Your task to perform on an android device: add a contact Image 0: 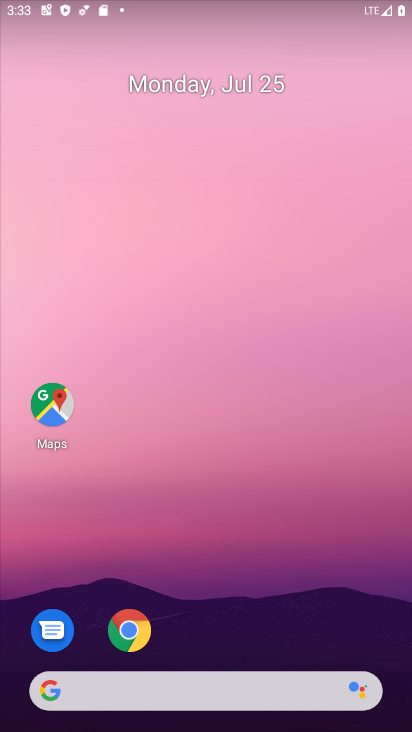
Step 0: drag from (292, 16) to (220, 7)
Your task to perform on an android device: add a contact Image 1: 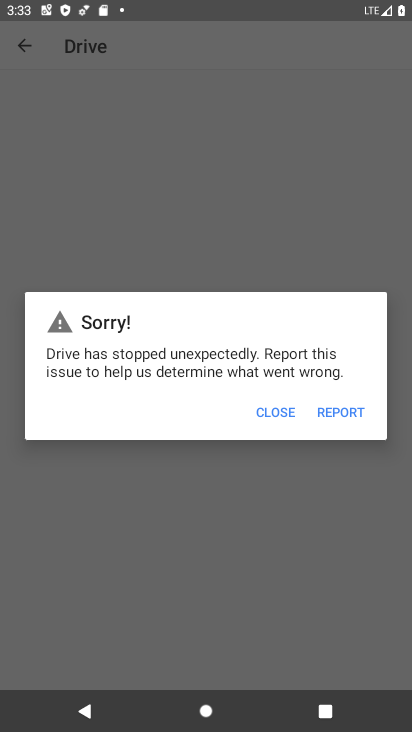
Step 1: press home button
Your task to perform on an android device: add a contact Image 2: 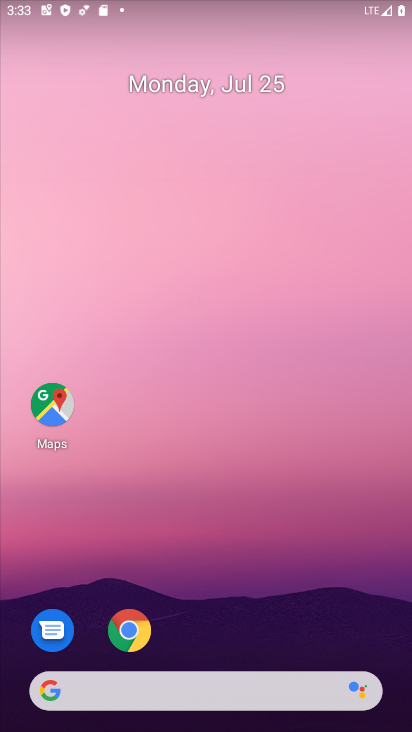
Step 2: drag from (197, 636) to (337, 3)
Your task to perform on an android device: add a contact Image 3: 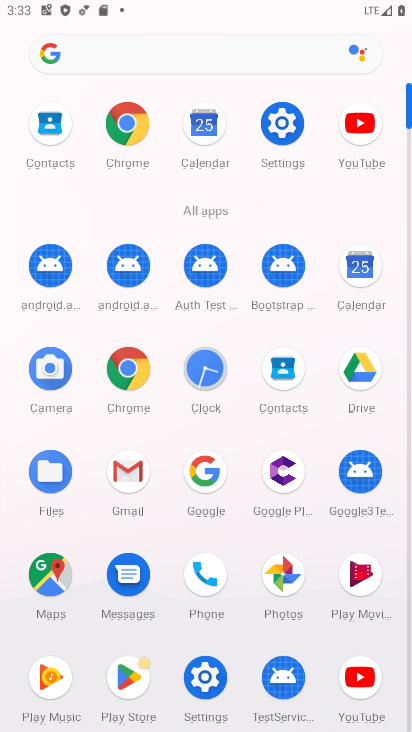
Step 3: click (292, 376)
Your task to perform on an android device: add a contact Image 4: 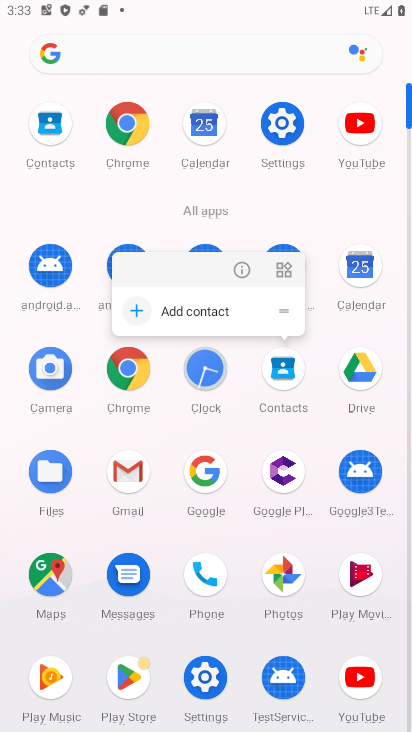
Step 4: click (281, 243)
Your task to perform on an android device: add a contact Image 5: 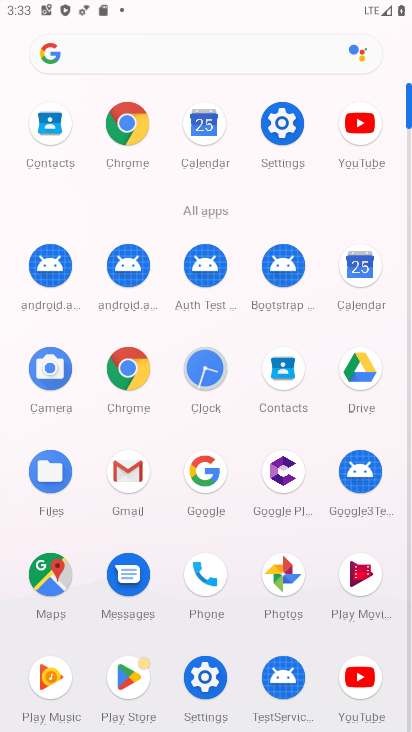
Step 5: click (297, 393)
Your task to perform on an android device: add a contact Image 6: 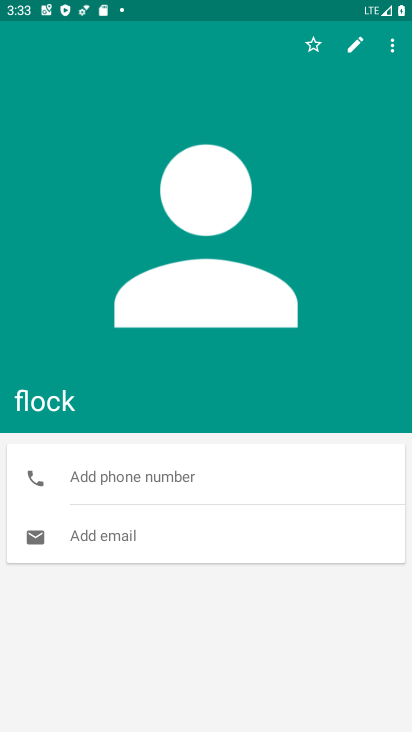
Step 6: press back button
Your task to perform on an android device: add a contact Image 7: 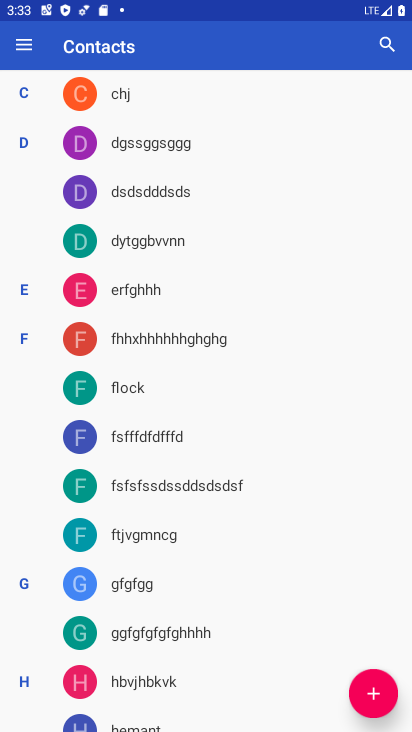
Step 7: click (382, 682)
Your task to perform on an android device: add a contact Image 8: 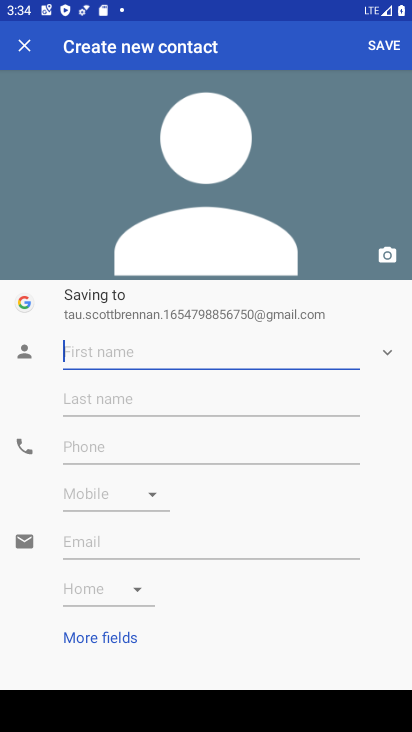
Step 8: type "tarzan"
Your task to perform on an android device: add a contact Image 9: 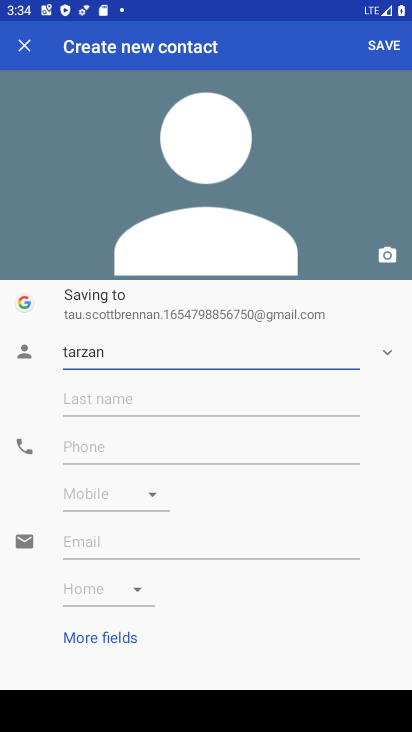
Step 9: click (388, 48)
Your task to perform on an android device: add a contact Image 10: 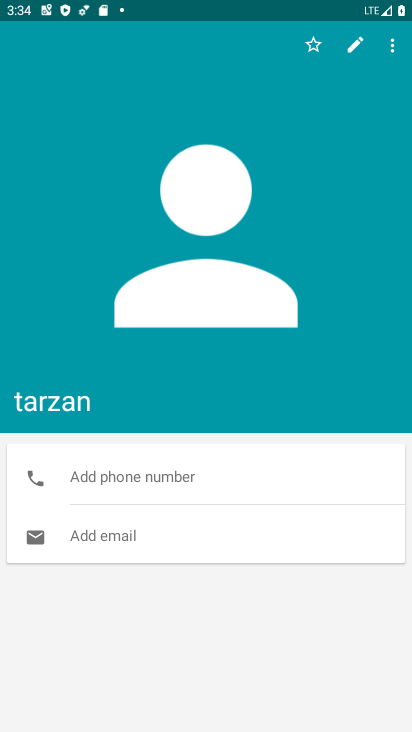
Step 10: task complete